Your task to perform on an android device: toggle data saver in the chrome app Image 0: 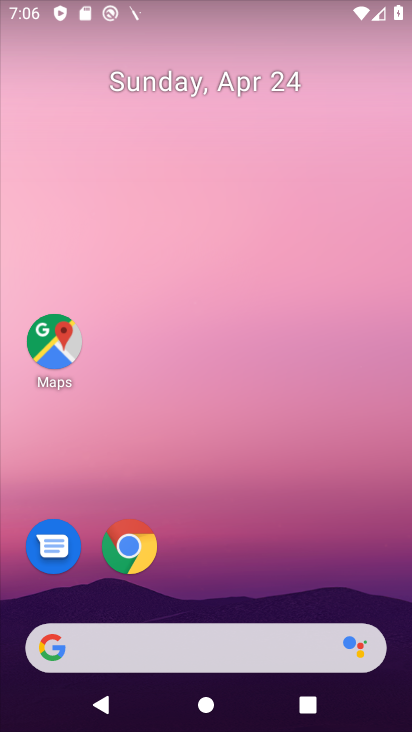
Step 0: click (128, 548)
Your task to perform on an android device: toggle data saver in the chrome app Image 1: 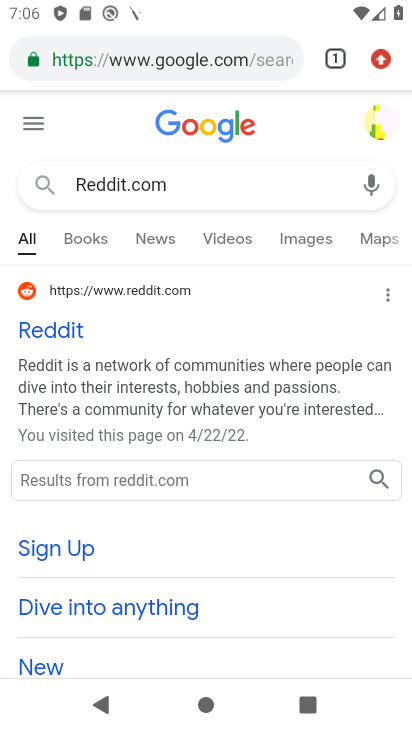
Step 1: click (379, 62)
Your task to perform on an android device: toggle data saver in the chrome app Image 2: 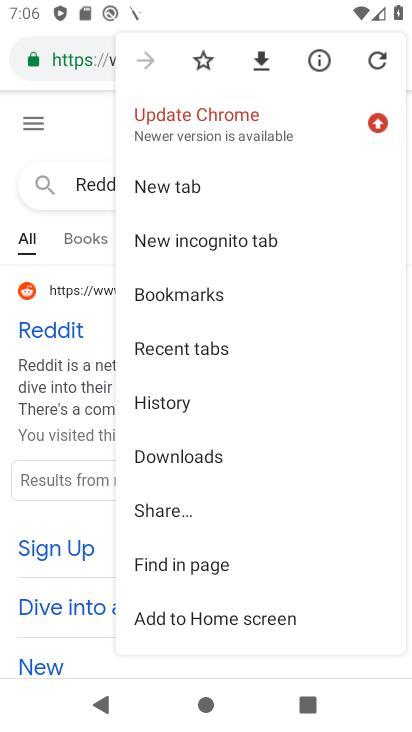
Step 2: drag from (299, 553) to (303, 155)
Your task to perform on an android device: toggle data saver in the chrome app Image 3: 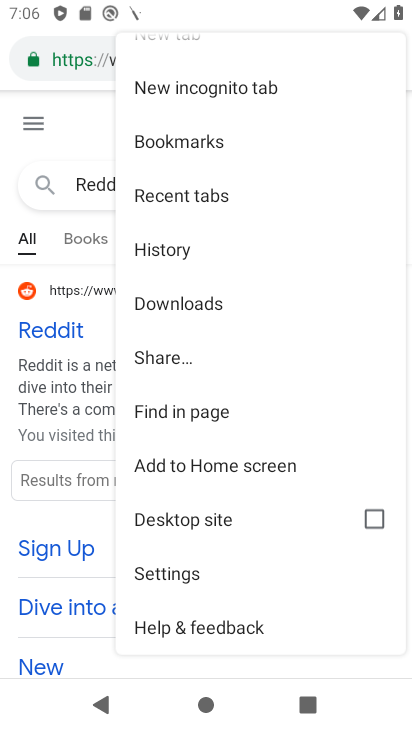
Step 3: click (166, 572)
Your task to perform on an android device: toggle data saver in the chrome app Image 4: 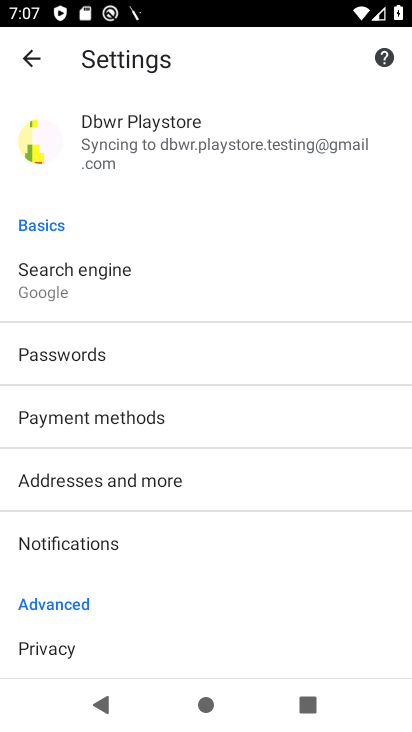
Step 4: drag from (235, 553) to (130, 42)
Your task to perform on an android device: toggle data saver in the chrome app Image 5: 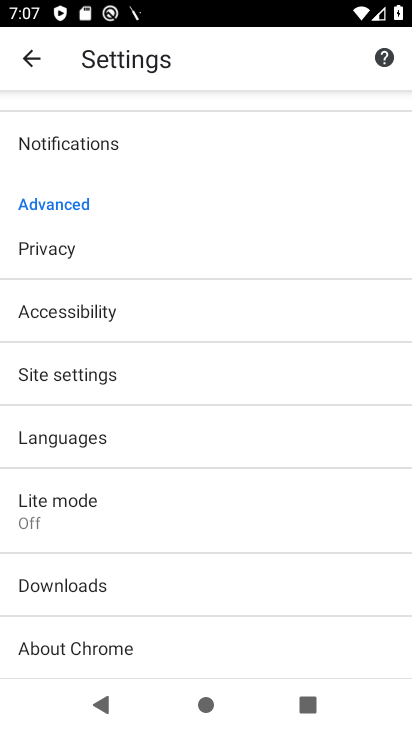
Step 5: click (61, 500)
Your task to perform on an android device: toggle data saver in the chrome app Image 6: 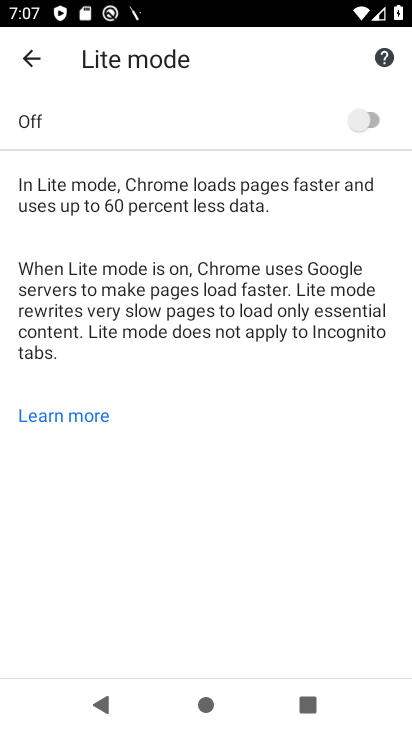
Step 6: click (361, 119)
Your task to perform on an android device: toggle data saver in the chrome app Image 7: 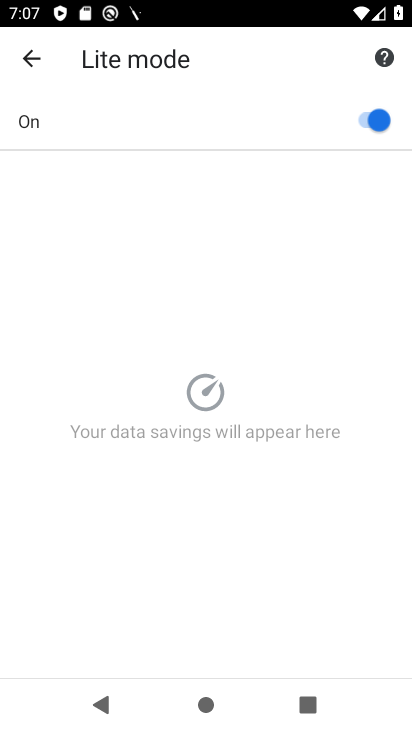
Step 7: task complete